Your task to perform on an android device: show emergency info Image 0: 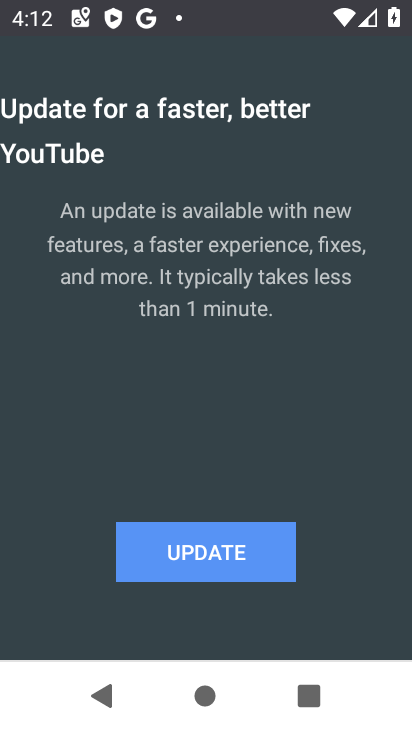
Step 0: drag from (356, 495) to (355, 145)
Your task to perform on an android device: show emergency info Image 1: 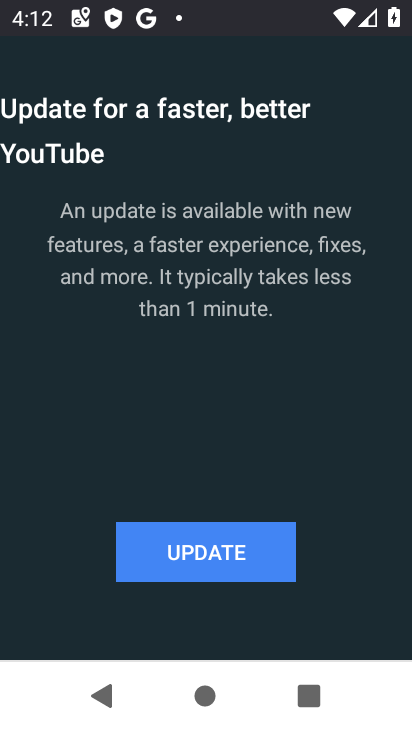
Step 1: press home button
Your task to perform on an android device: show emergency info Image 2: 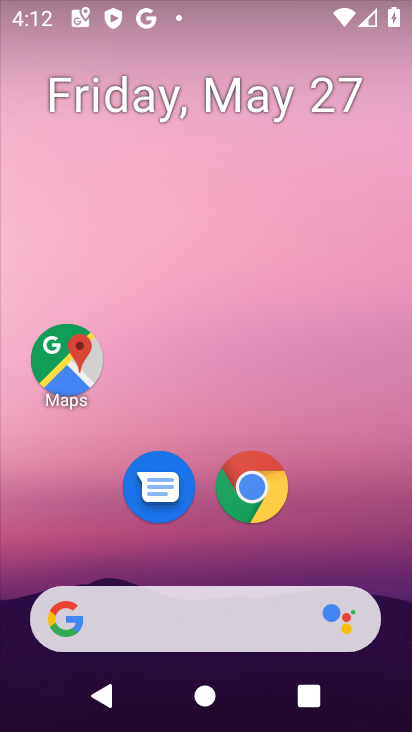
Step 2: drag from (320, 523) to (229, 101)
Your task to perform on an android device: show emergency info Image 3: 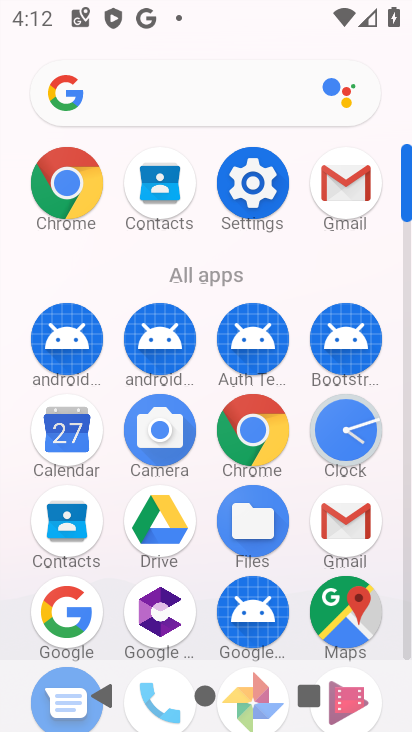
Step 3: click (250, 164)
Your task to perform on an android device: show emergency info Image 4: 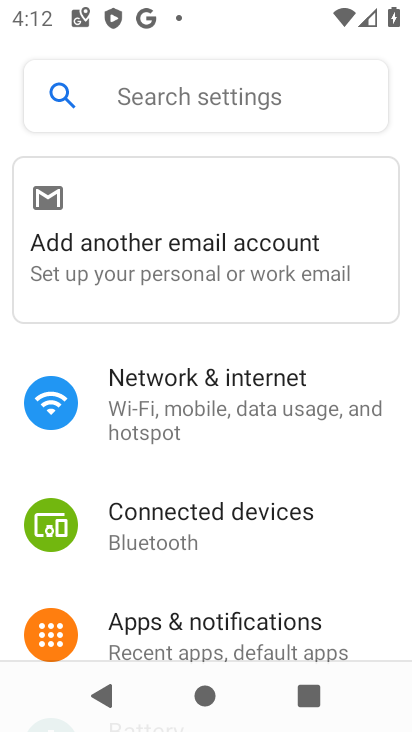
Step 4: drag from (208, 557) to (221, 146)
Your task to perform on an android device: show emergency info Image 5: 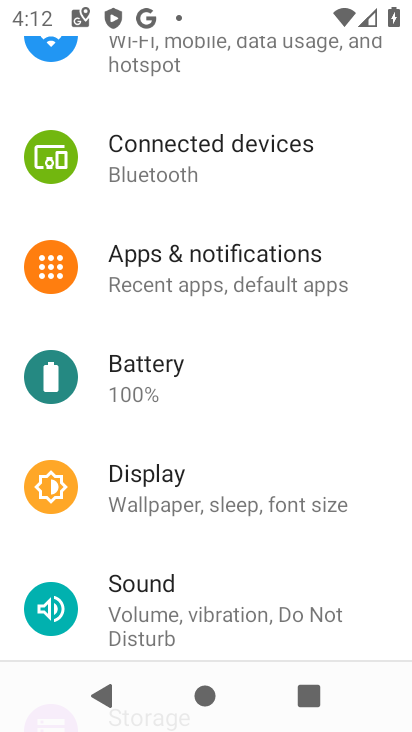
Step 5: drag from (271, 588) to (270, 140)
Your task to perform on an android device: show emergency info Image 6: 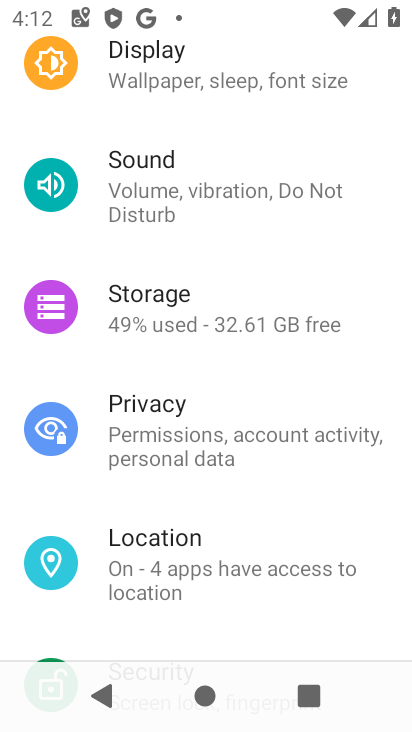
Step 6: drag from (251, 631) to (215, 140)
Your task to perform on an android device: show emergency info Image 7: 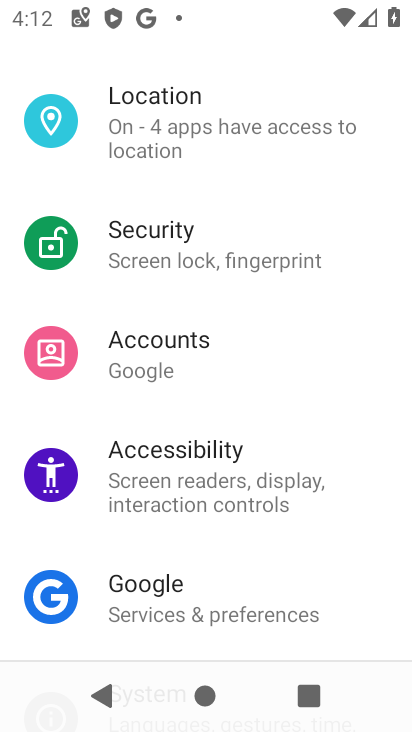
Step 7: drag from (251, 573) to (271, 136)
Your task to perform on an android device: show emergency info Image 8: 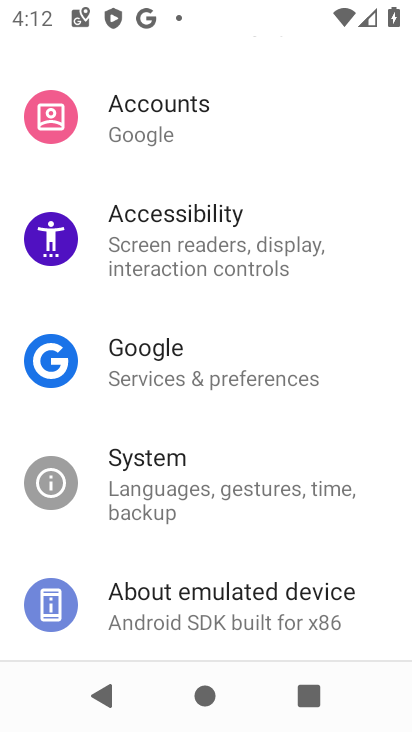
Step 8: click (247, 585)
Your task to perform on an android device: show emergency info Image 9: 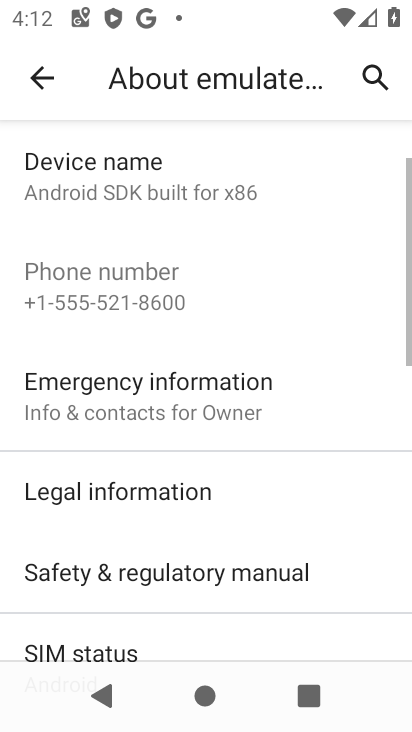
Step 9: click (203, 384)
Your task to perform on an android device: show emergency info Image 10: 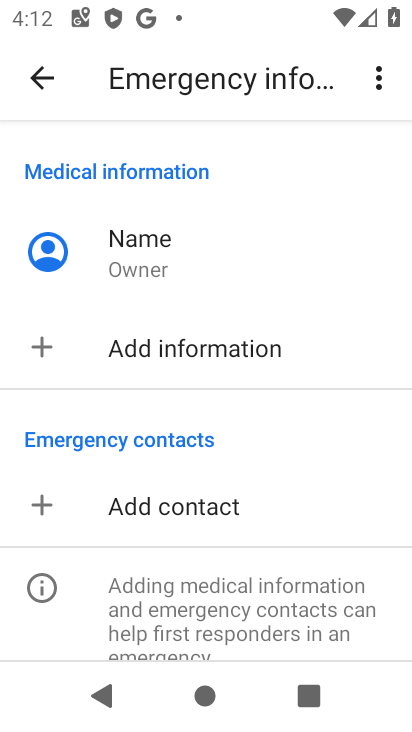
Step 10: task complete